Your task to perform on an android device: check battery use Image 0: 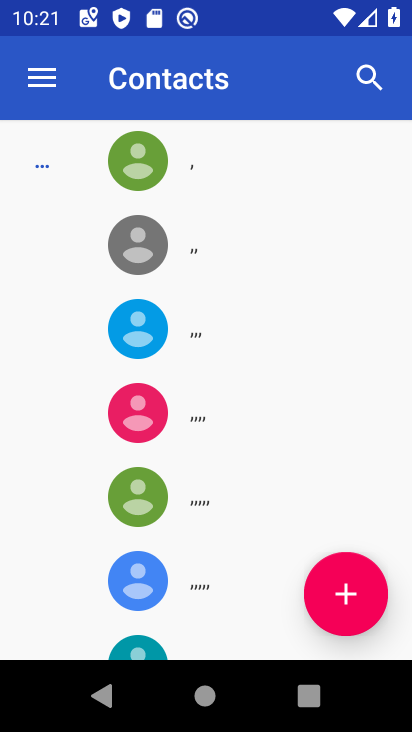
Step 0: press home button
Your task to perform on an android device: check battery use Image 1: 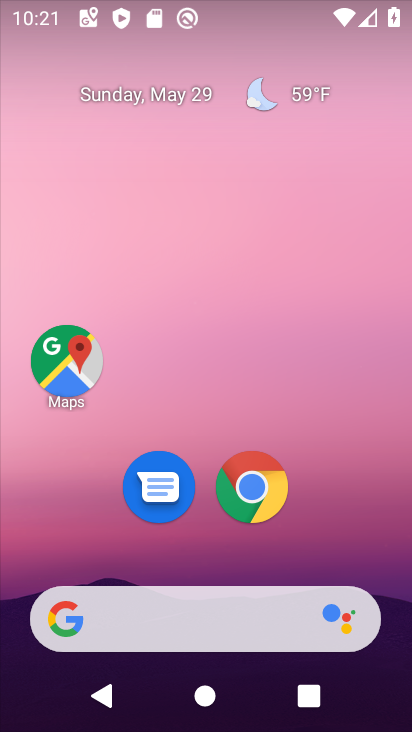
Step 1: drag from (381, 671) to (350, 237)
Your task to perform on an android device: check battery use Image 2: 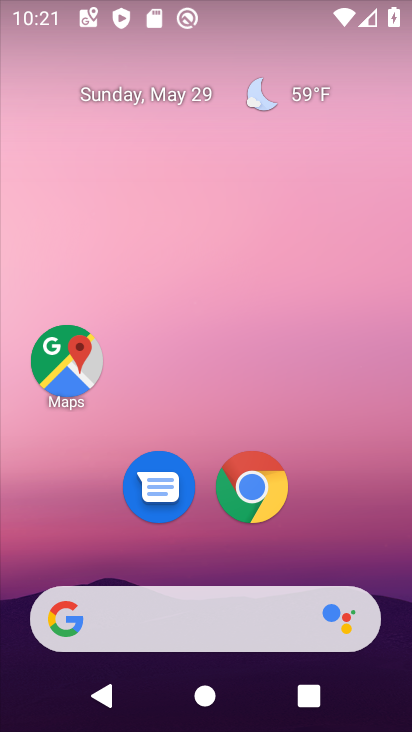
Step 2: drag from (381, 691) to (334, 127)
Your task to perform on an android device: check battery use Image 3: 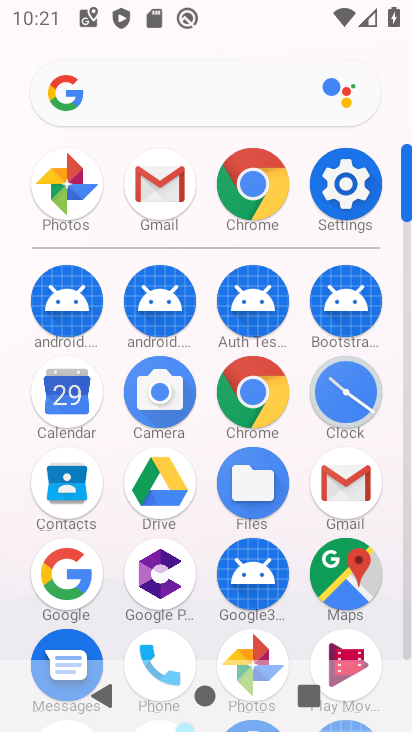
Step 3: click (333, 194)
Your task to perform on an android device: check battery use Image 4: 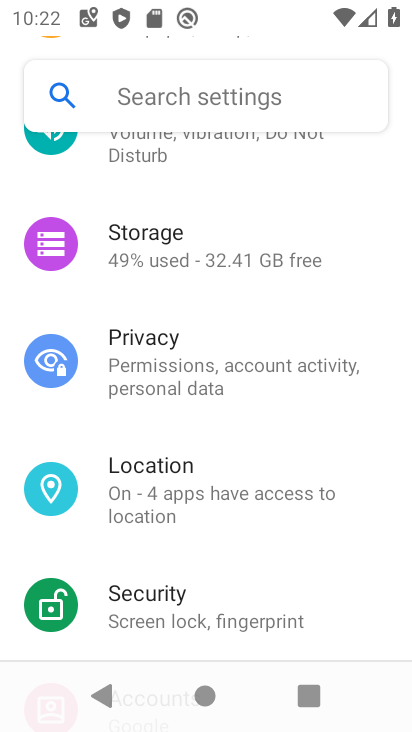
Step 4: drag from (286, 193) to (310, 595)
Your task to perform on an android device: check battery use Image 5: 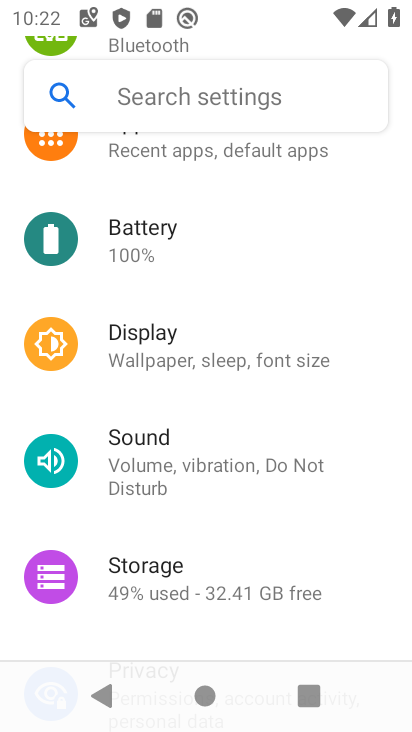
Step 5: click (140, 236)
Your task to perform on an android device: check battery use Image 6: 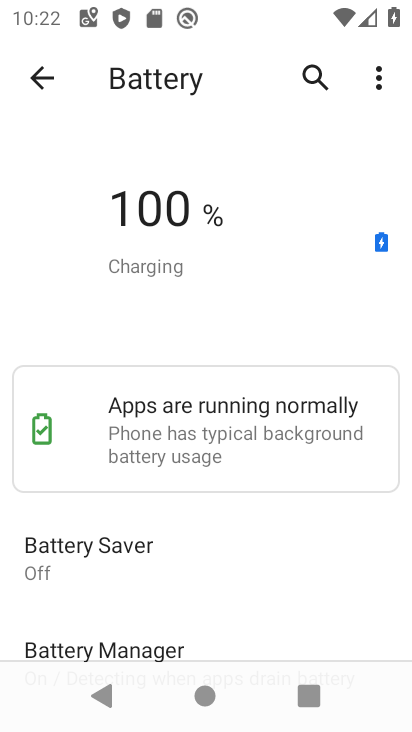
Step 6: click (379, 70)
Your task to perform on an android device: check battery use Image 7: 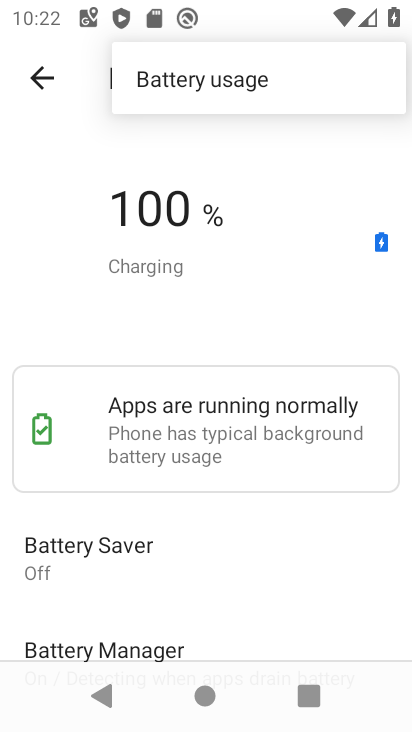
Step 7: click (239, 85)
Your task to perform on an android device: check battery use Image 8: 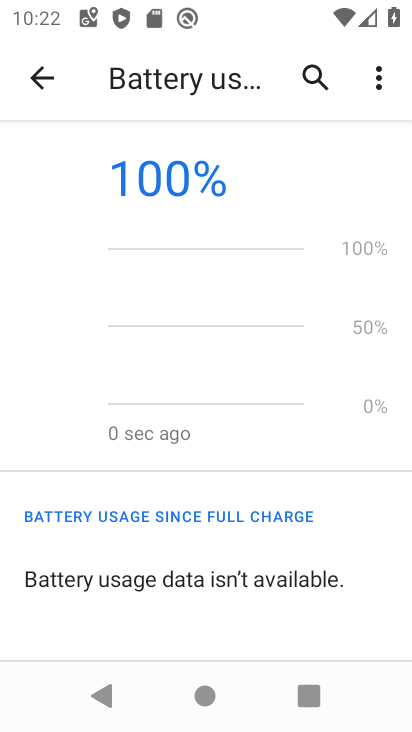
Step 8: task complete